Your task to perform on an android device: Open the Play Movies app and select the watchlist tab. Image 0: 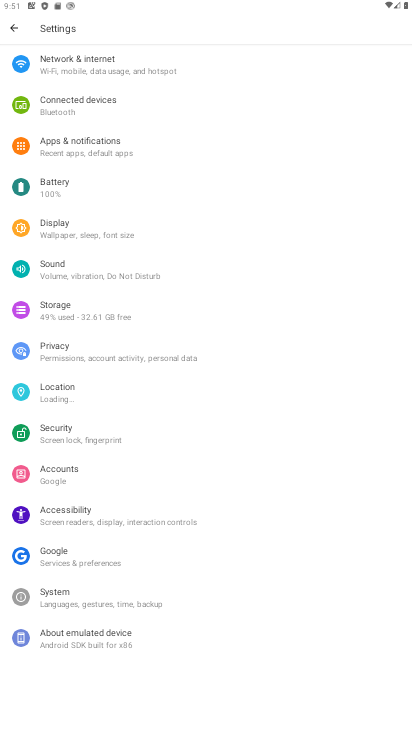
Step 0: press home button
Your task to perform on an android device: Open the Play Movies app and select the watchlist tab. Image 1: 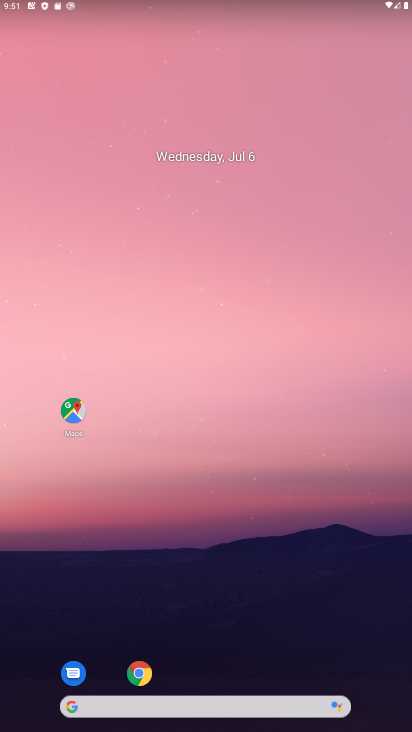
Step 1: drag from (196, 666) to (228, 201)
Your task to perform on an android device: Open the Play Movies app and select the watchlist tab. Image 2: 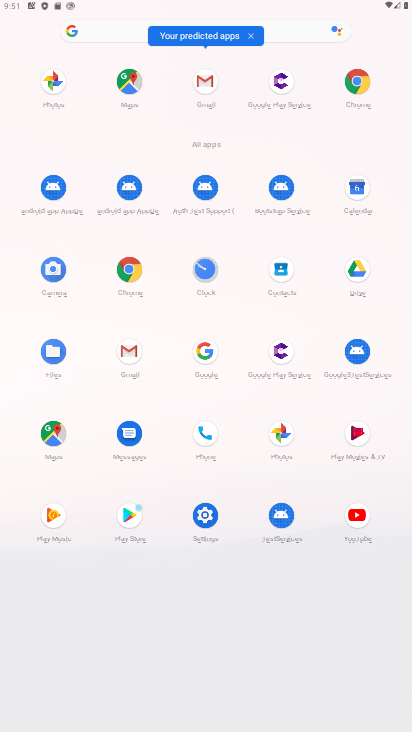
Step 2: click (358, 430)
Your task to perform on an android device: Open the Play Movies app and select the watchlist tab. Image 3: 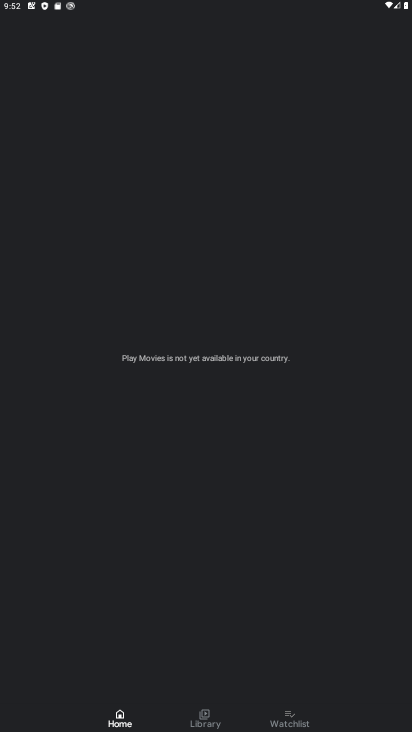
Step 3: click (288, 725)
Your task to perform on an android device: Open the Play Movies app and select the watchlist tab. Image 4: 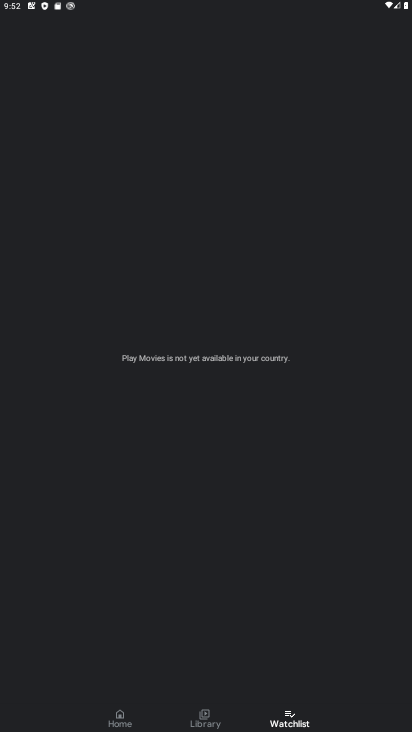
Step 4: task complete